Your task to perform on an android device: Open the calendar and show me this week's events? Image 0: 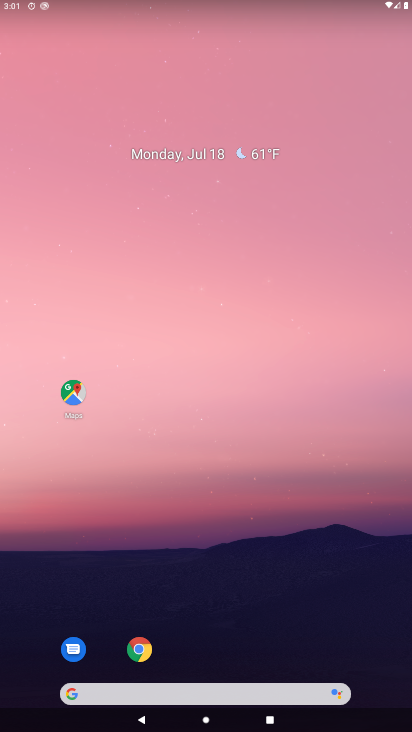
Step 0: drag from (45, 668) to (180, 26)
Your task to perform on an android device: Open the calendar and show me this week's events? Image 1: 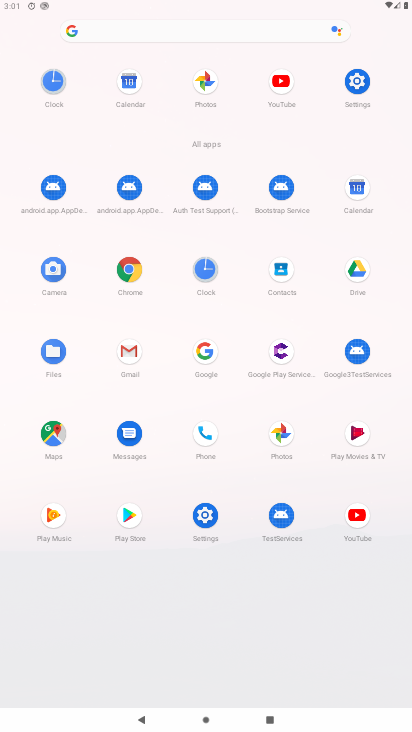
Step 1: click (366, 196)
Your task to perform on an android device: Open the calendar and show me this week's events? Image 2: 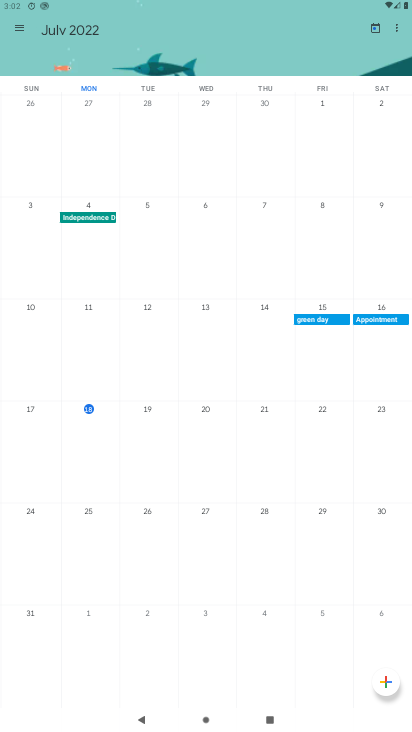
Step 2: task complete